Your task to perform on an android device: Open the phone app and click the voicemail tab. Image 0: 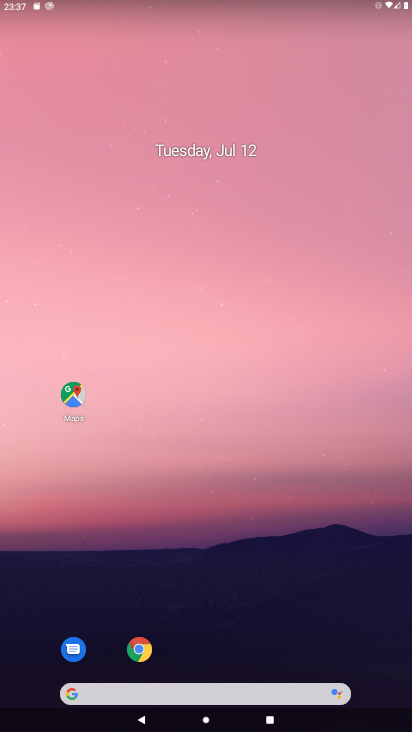
Step 0: drag from (384, 649) to (342, 134)
Your task to perform on an android device: Open the phone app and click the voicemail tab. Image 1: 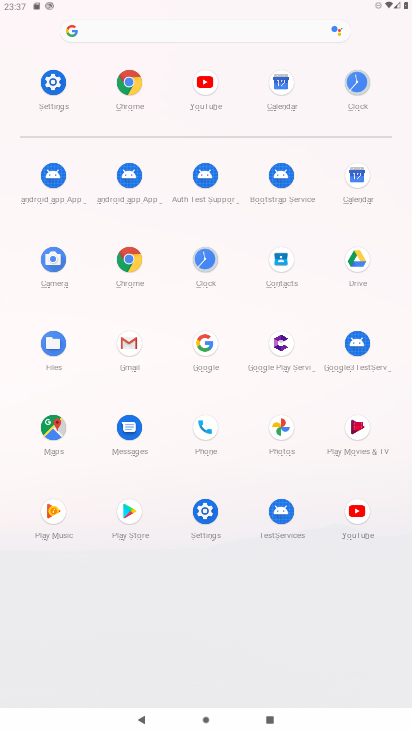
Step 1: click (204, 429)
Your task to perform on an android device: Open the phone app and click the voicemail tab. Image 2: 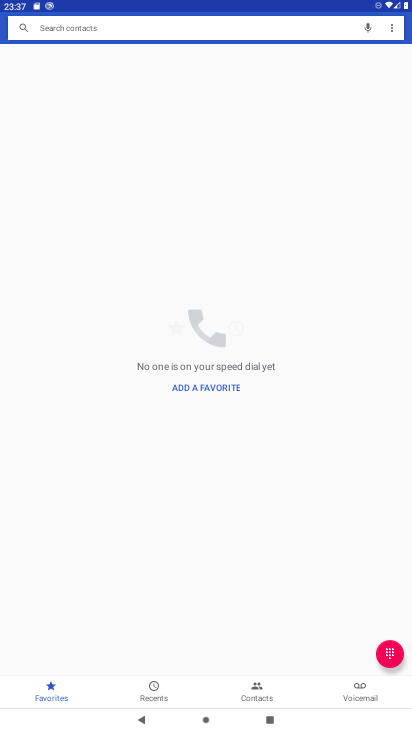
Step 2: click (356, 687)
Your task to perform on an android device: Open the phone app and click the voicemail tab. Image 3: 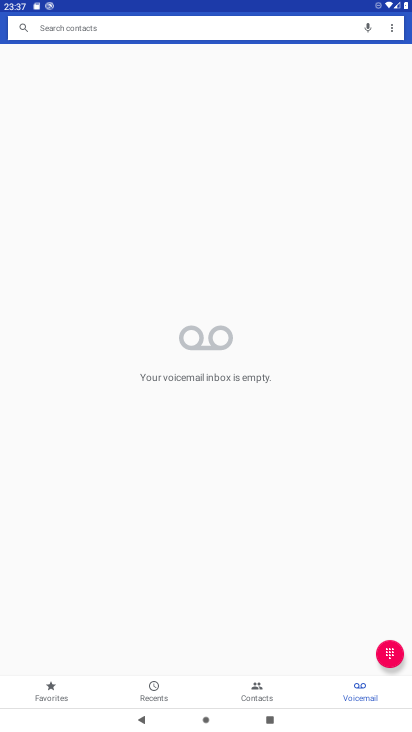
Step 3: task complete